Your task to perform on an android device: Go to settings Image 0: 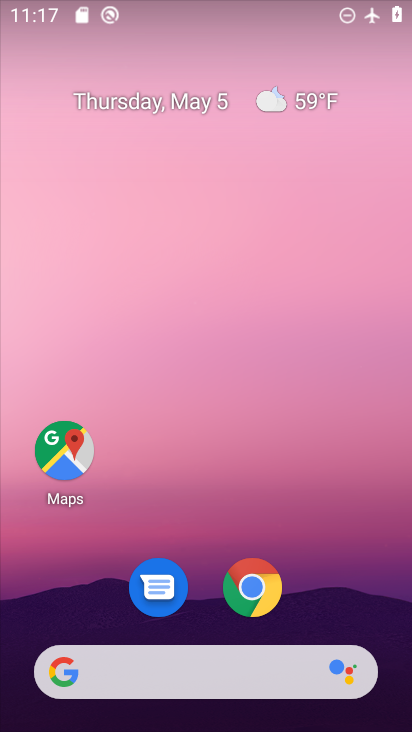
Step 0: drag from (268, 189) to (240, 24)
Your task to perform on an android device: Go to settings Image 1: 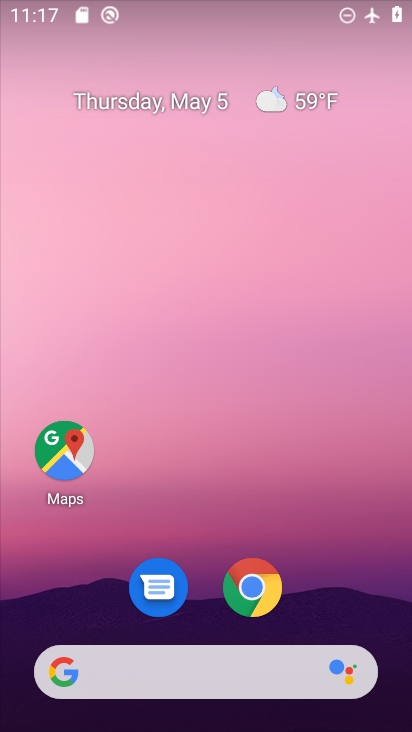
Step 1: drag from (383, 665) to (321, 35)
Your task to perform on an android device: Go to settings Image 2: 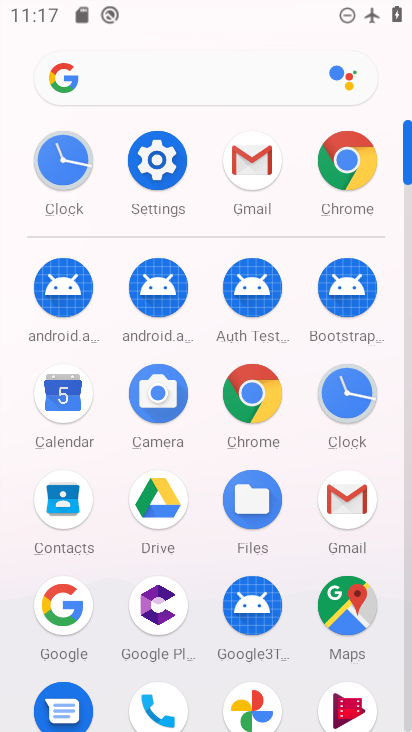
Step 2: click (156, 161)
Your task to perform on an android device: Go to settings Image 3: 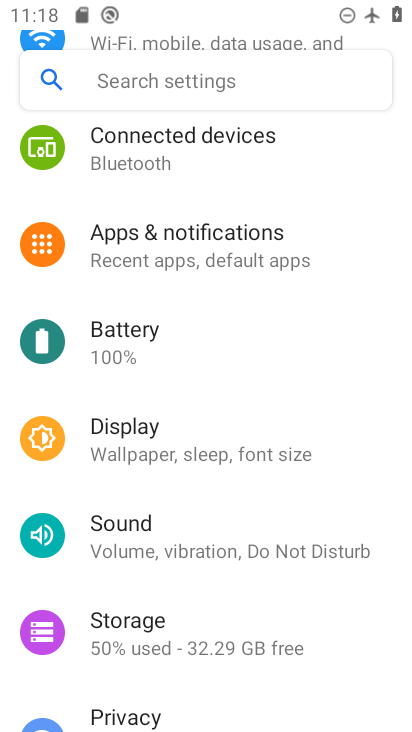
Step 3: task complete